Your task to perform on an android device: Show me the alarms in the clock app Image 0: 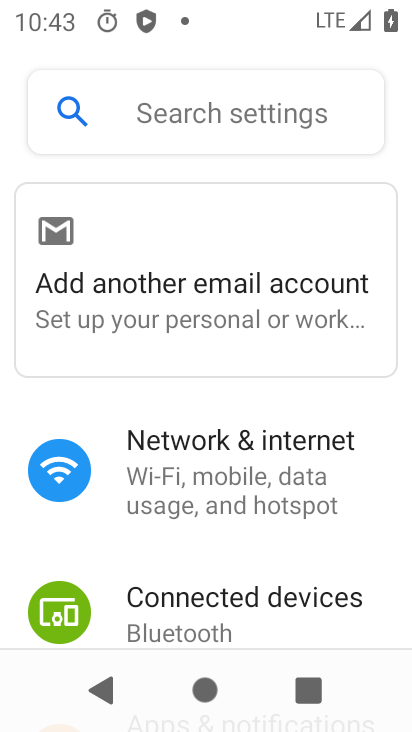
Step 0: press home button
Your task to perform on an android device: Show me the alarms in the clock app Image 1: 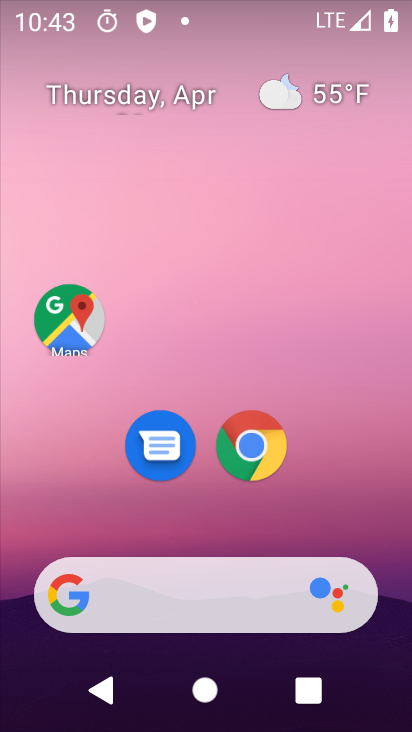
Step 1: drag from (340, 479) to (344, 1)
Your task to perform on an android device: Show me the alarms in the clock app Image 2: 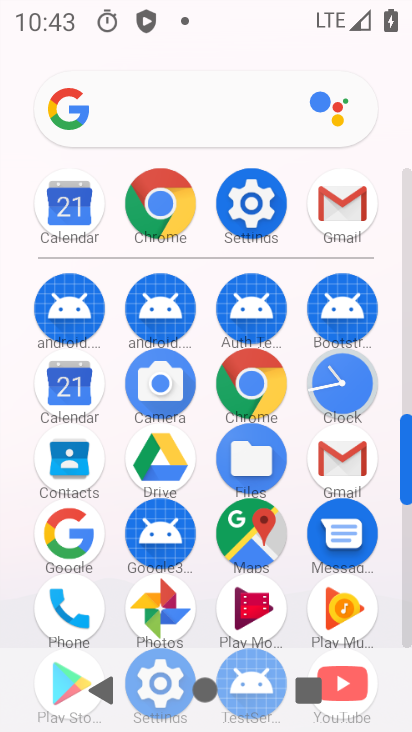
Step 2: click (344, 396)
Your task to perform on an android device: Show me the alarms in the clock app Image 3: 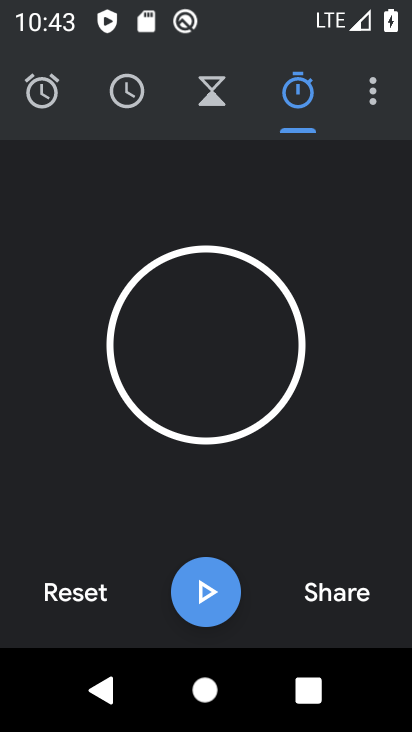
Step 3: click (52, 89)
Your task to perform on an android device: Show me the alarms in the clock app Image 4: 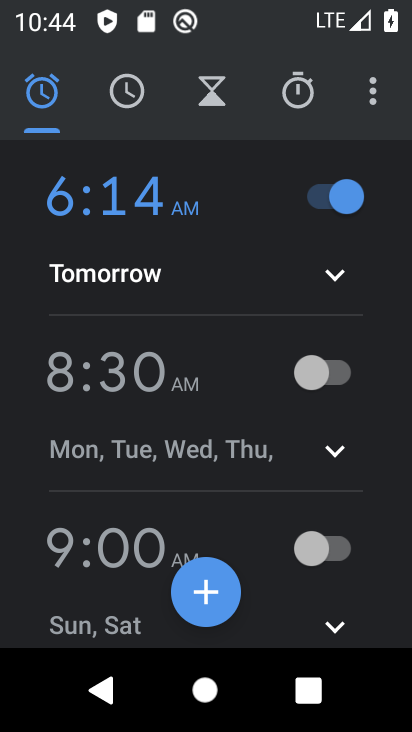
Step 4: click (52, 89)
Your task to perform on an android device: Show me the alarms in the clock app Image 5: 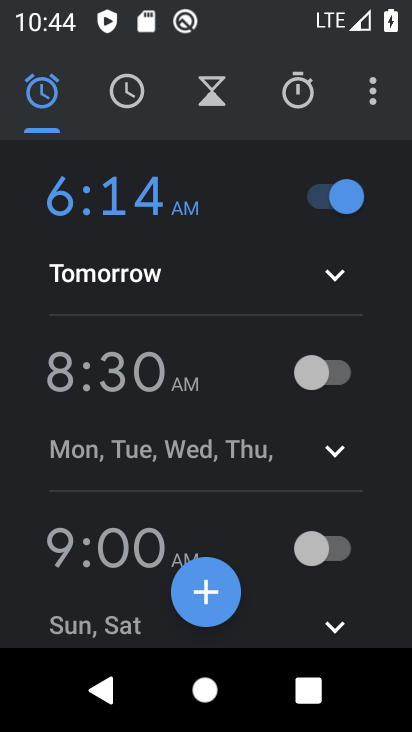
Step 5: task complete